Your task to perform on an android device: Play the last video I watched on Youtube Image 0: 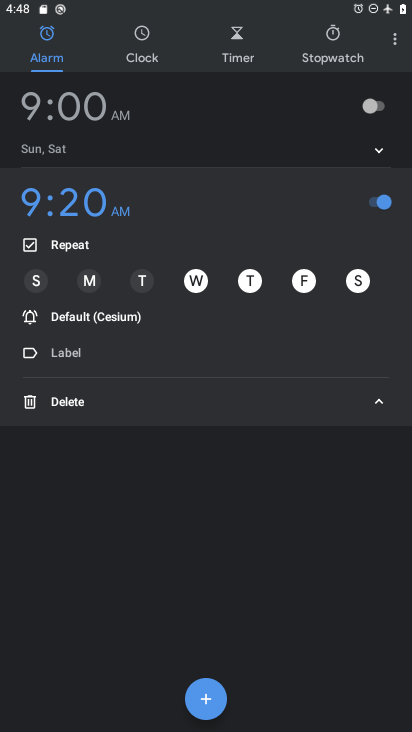
Step 0: press home button
Your task to perform on an android device: Play the last video I watched on Youtube Image 1: 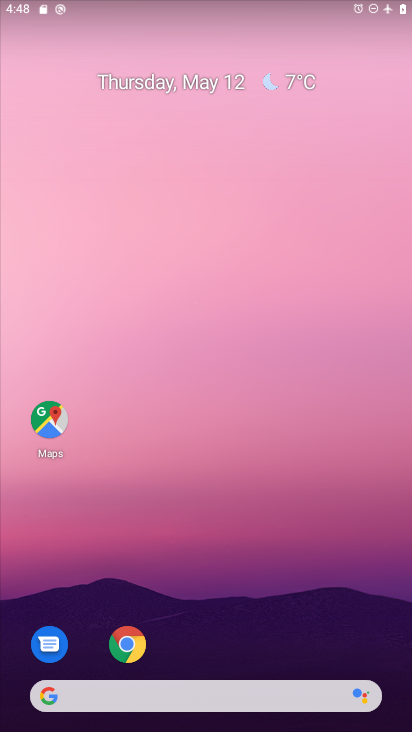
Step 1: drag from (197, 588) to (302, 124)
Your task to perform on an android device: Play the last video I watched on Youtube Image 2: 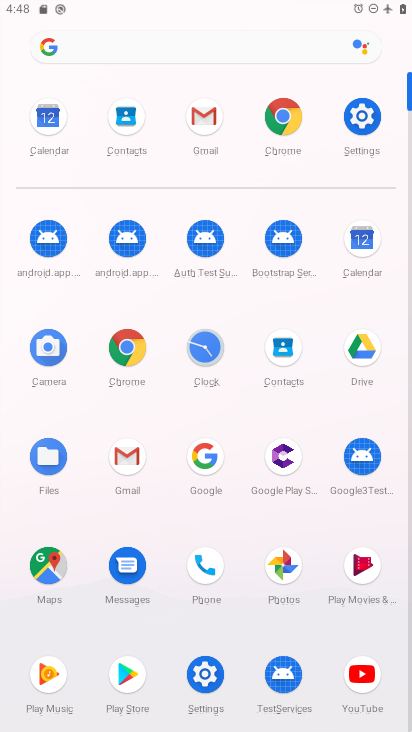
Step 2: click (352, 653)
Your task to perform on an android device: Play the last video I watched on Youtube Image 3: 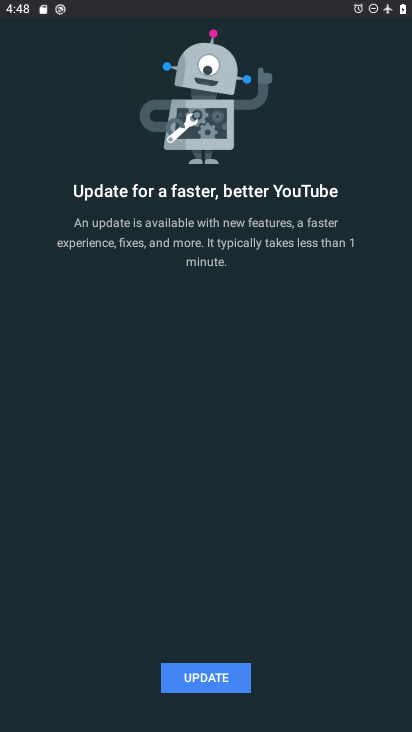
Step 3: click (211, 682)
Your task to perform on an android device: Play the last video I watched on Youtube Image 4: 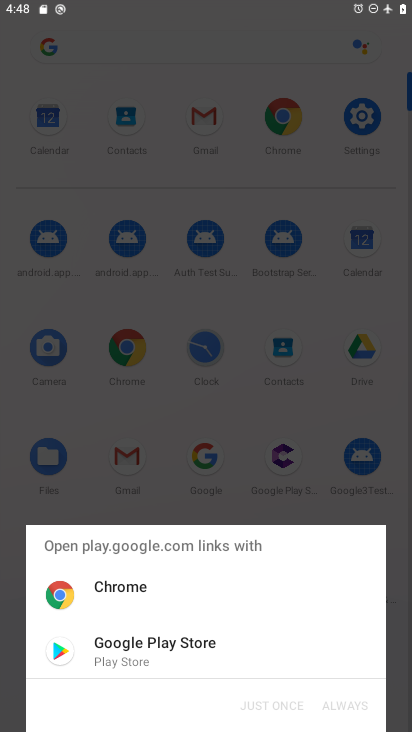
Step 4: task complete